Your task to perform on an android device: manage bookmarks in the chrome app Image 0: 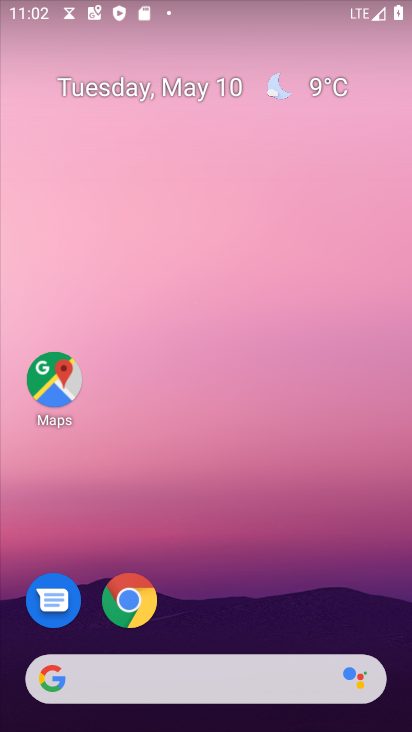
Step 0: drag from (268, 566) to (203, 7)
Your task to perform on an android device: manage bookmarks in the chrome app Image 1: 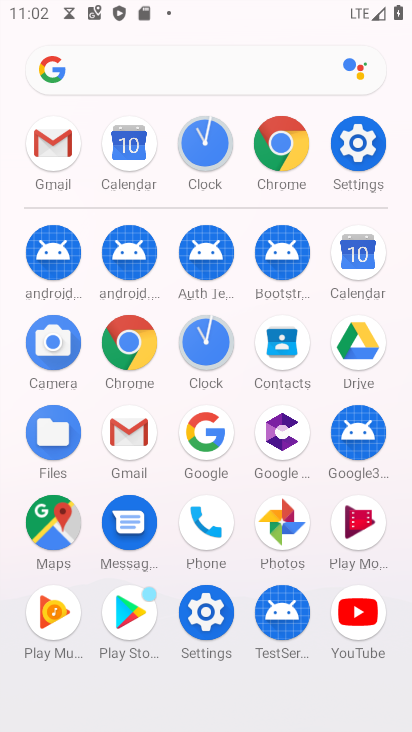
Step 1: click (274, 130)
Your task to perform on an android device: manage bookmarks in the chrome app Image 2: 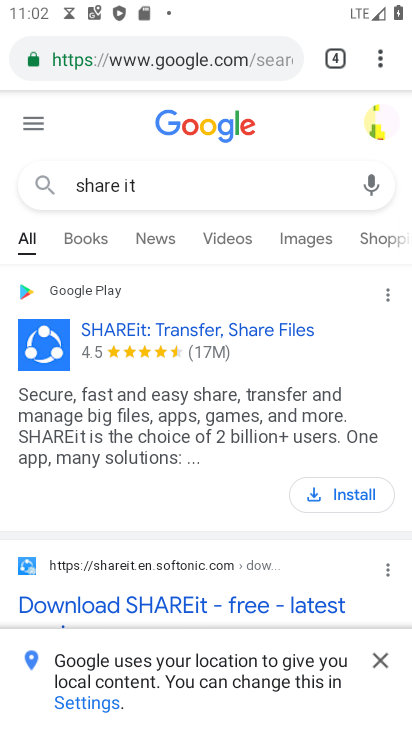
Step 2: click (382, 66)
Your task to perform on an android device: manage bookmarks in the chrome app Image 3: 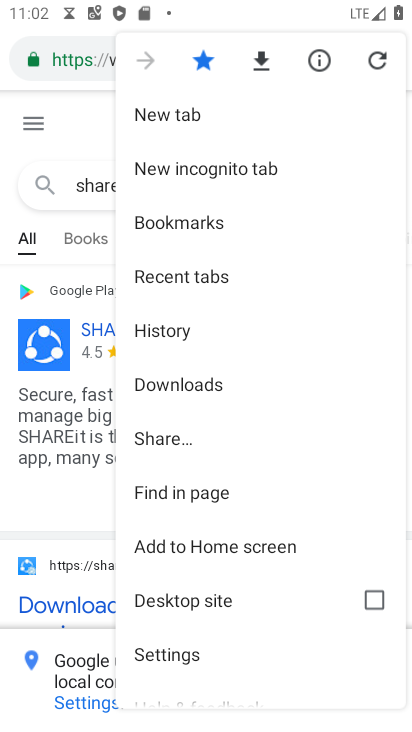
Step 3: click (203, 220)
Your task to perform on an android device: manage bookmarks in the chrome app Image 4: 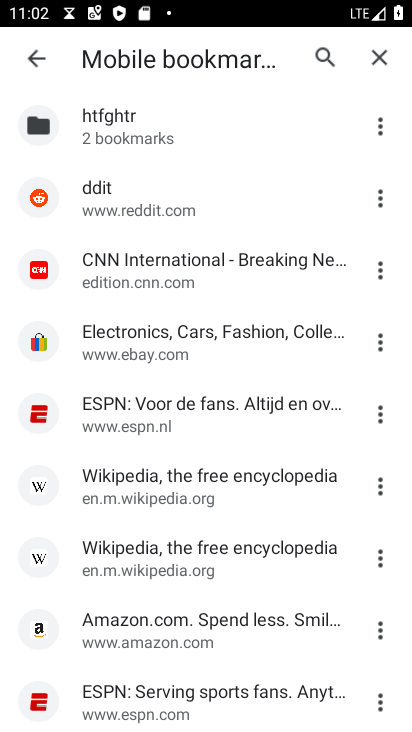
Step 4: click (386, 279)
Your task to perform on an android device: manage bookmarks in the chrome app Image 5: 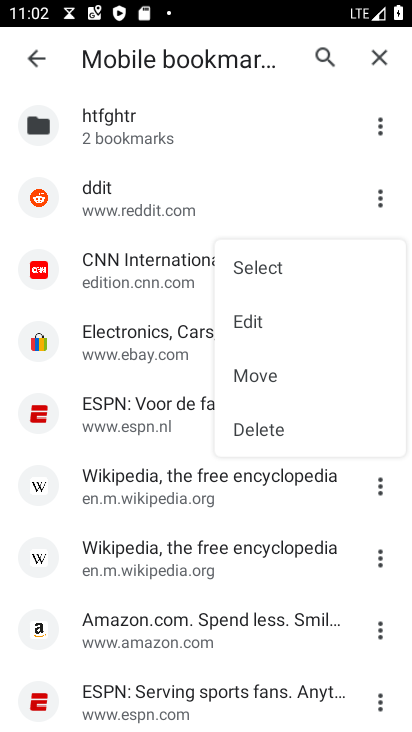
Step 5: click (308, 421)
Your task to perform on an android device: manage bookmarks in the chrome app Image 6: 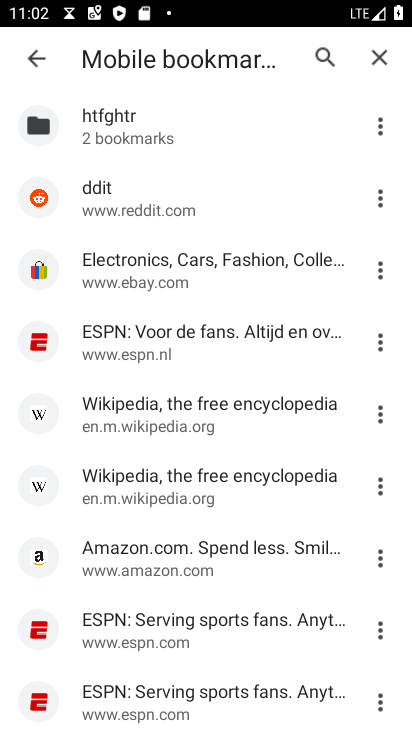
Step 6: task complete